Your task to perform on an android device: toggle javascript in the chrome app Image 0: 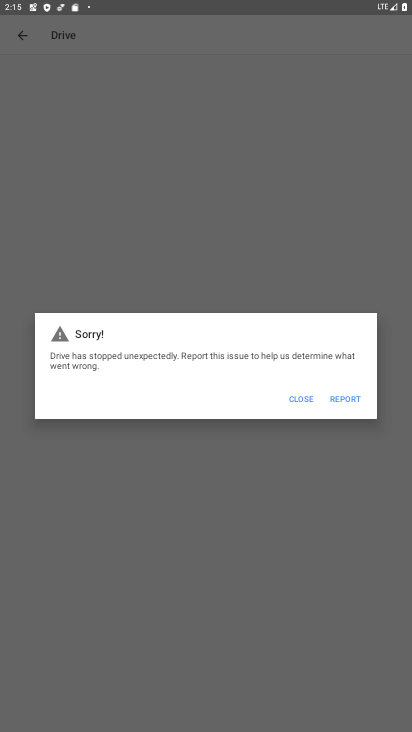
Step 0: press home button
Your task to perform on an android device: toggle javascript in the chrome app Image 1: 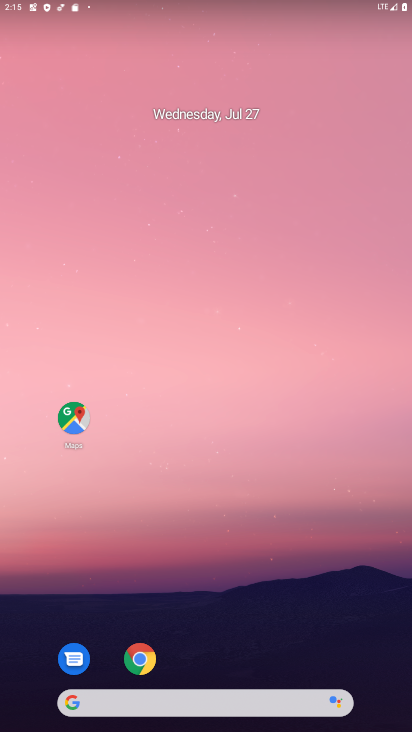
Step 1: click (144, 656)
Your task to perform on an android device: toggle javascript in the chrome app Image 2: 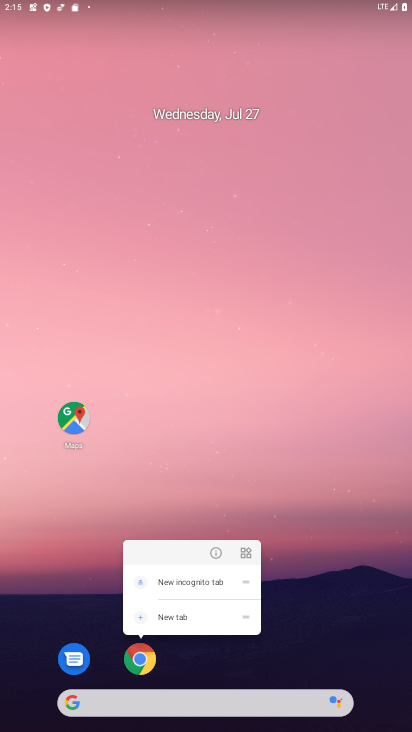
Step 2: click (141, 657)
Your task to perform on an android device: toggle javascript in the chrome app Image 3: 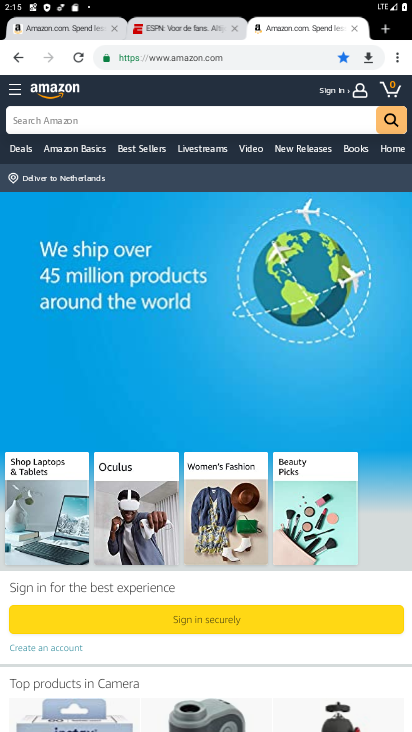
Step 3: click (385, 197)
Your task to perform on an android device: toggle javascript in the chrome app Image 4: 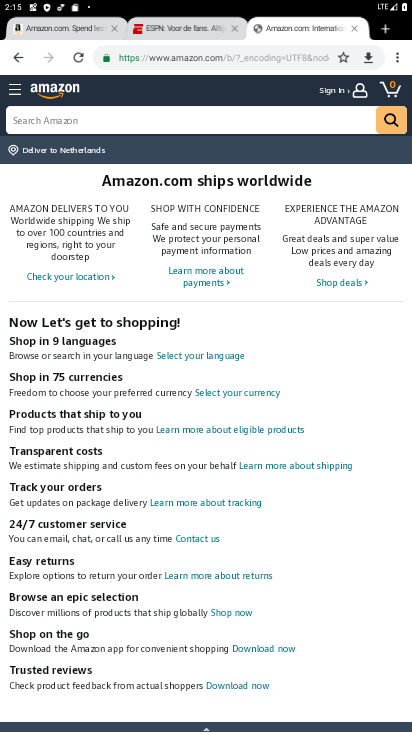
Step 4: click (397, 56)
Your task to perform on an android device: toggle javascript in the chrome app Image 5: 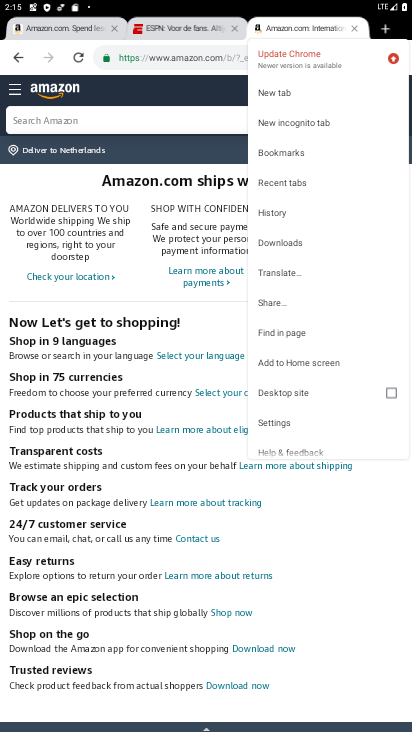
Step 5: click (281, 420)
Your task to perform on an android device: toggle javascript in the chrome app Image 6: 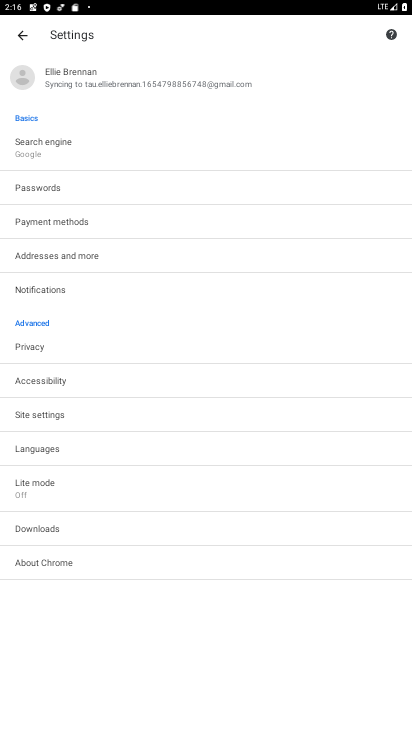
Step 6: click (37, 412)
Your task to perform on an android device: toggle javascript in the chrome app Image 7: 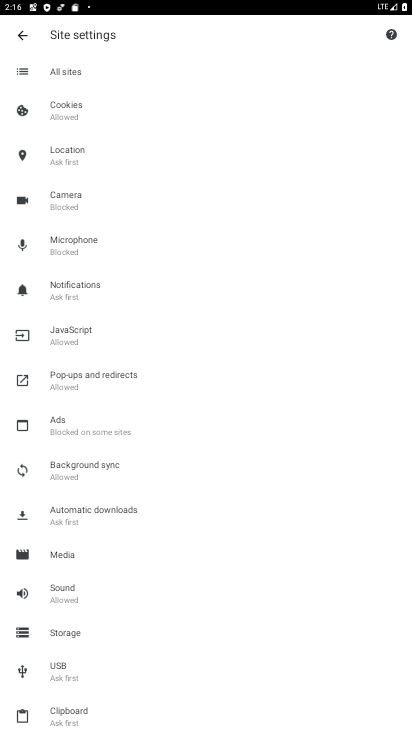
Step 7: click (65, 332)
Your task to perform on an android device: toggle javascript in the chrome app Image 8: 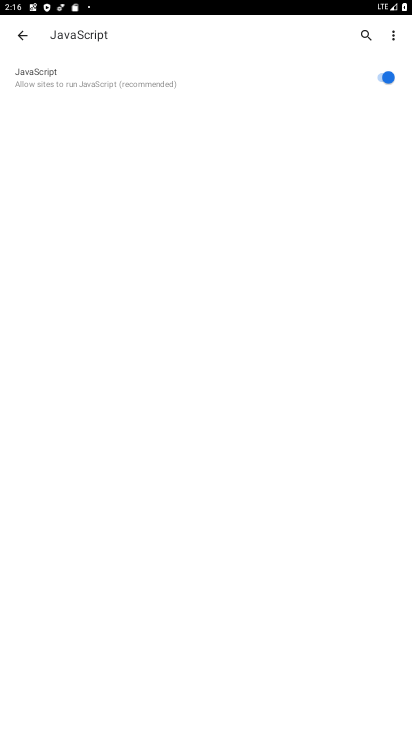
Step 8: click (381, 81)
Your task to perform on an android device: toggle javascript in the chrome app Image 9: 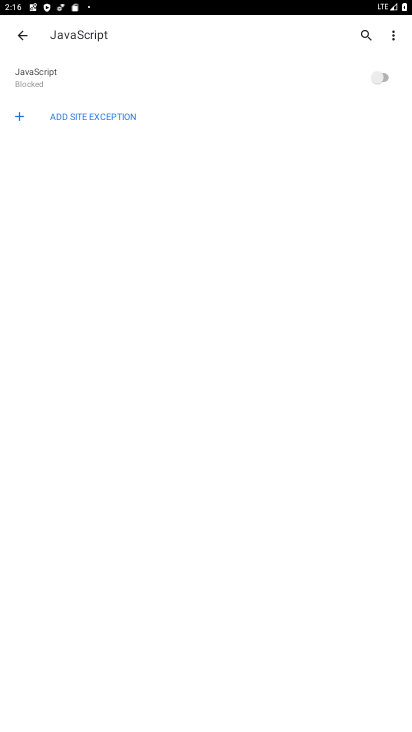
Step 9: task complete